Your task to perform on an android device: Empty the shopping cart on ebay.com. Image 0: 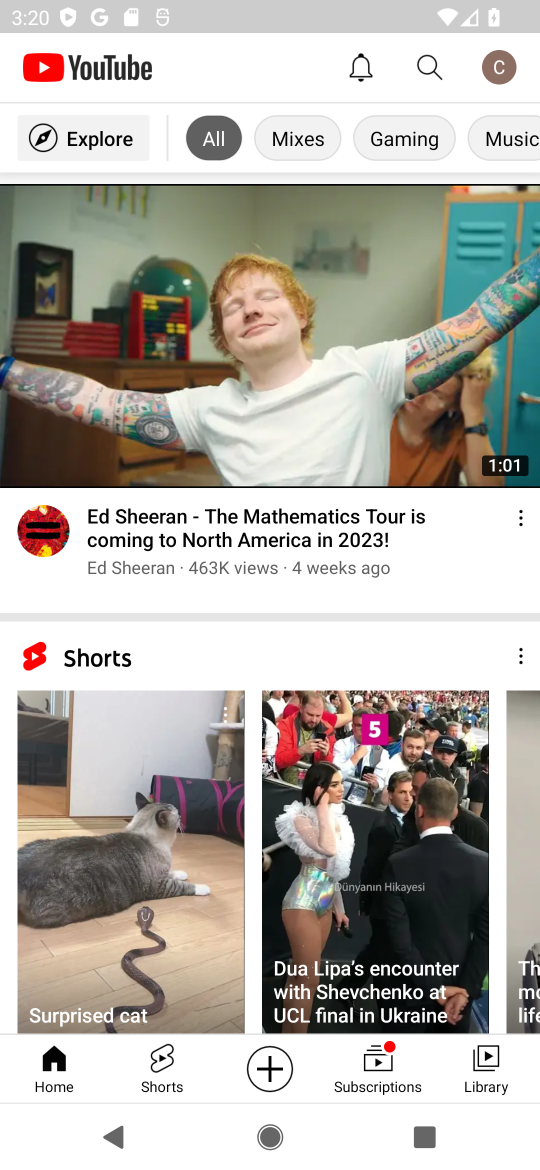
Step 0: press home button
Your task to perform on an android device: Empty the shopping cart on ebay.com. Image 1: 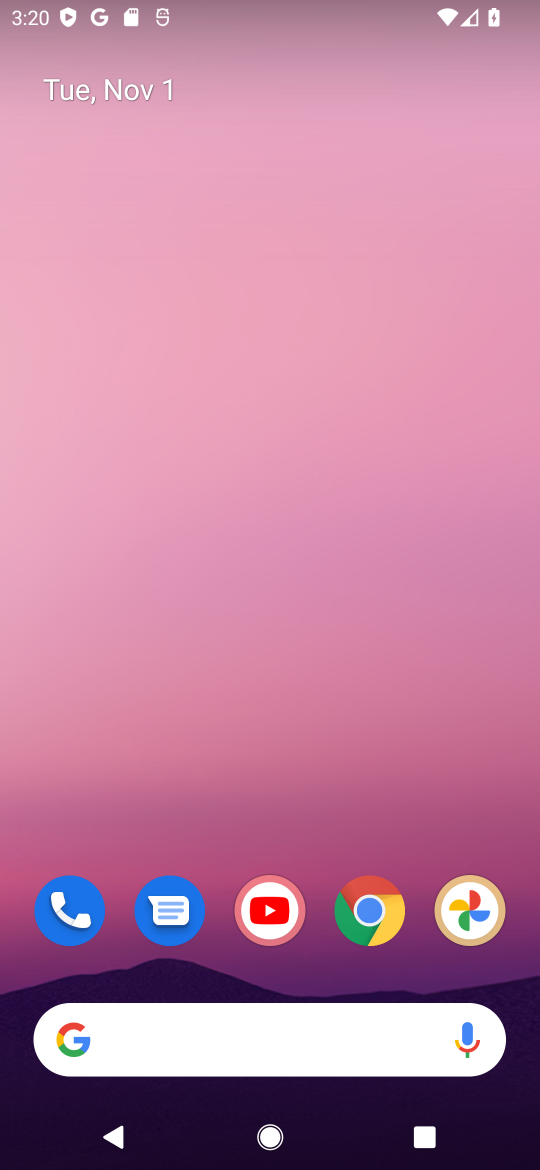
Step 1: click (242, 1042)
Your task to perform on an android device: Empty the shopping cart on ebay.com. Image 2: 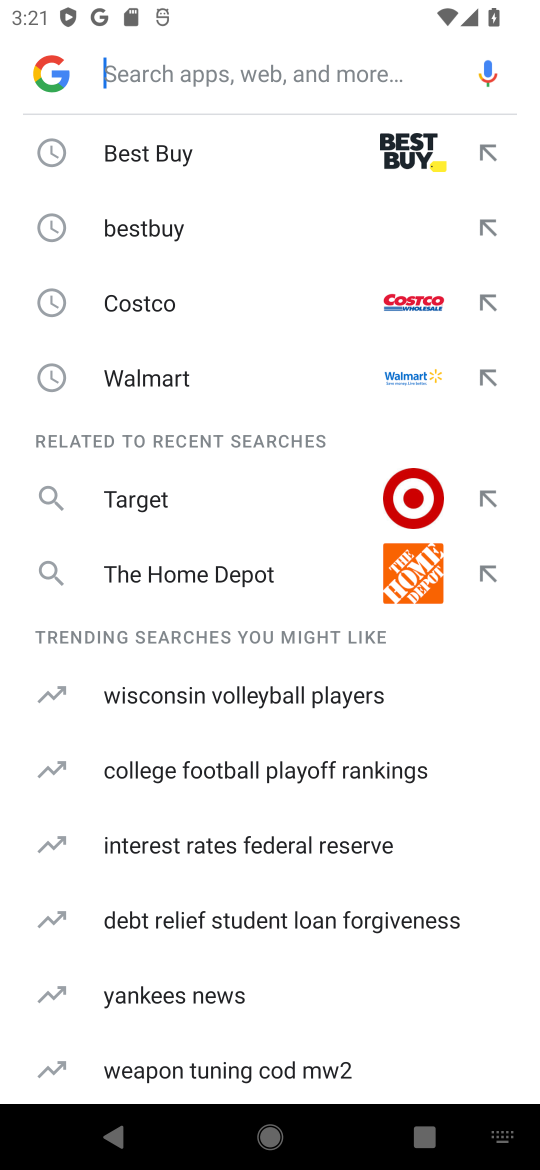
Step 2: click (238, 170)
Your task to perform on an android device: Empty the shopping cart on ebay.com. Image 3: 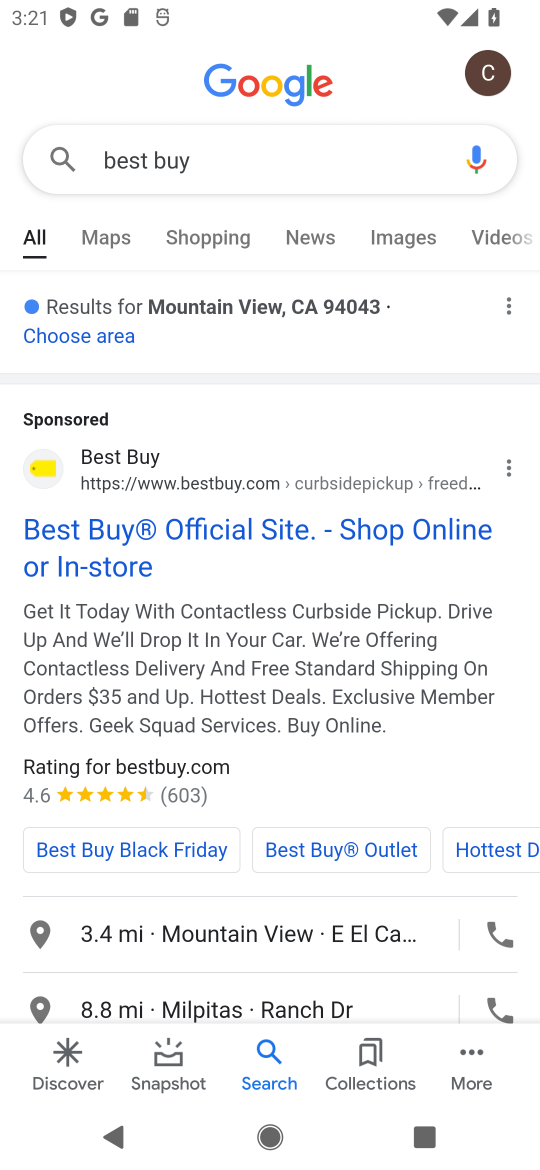
Step 3: click (149, 534)
Your task to perform on an android device: Empty the shopping cart on ebay.com. Image 4: 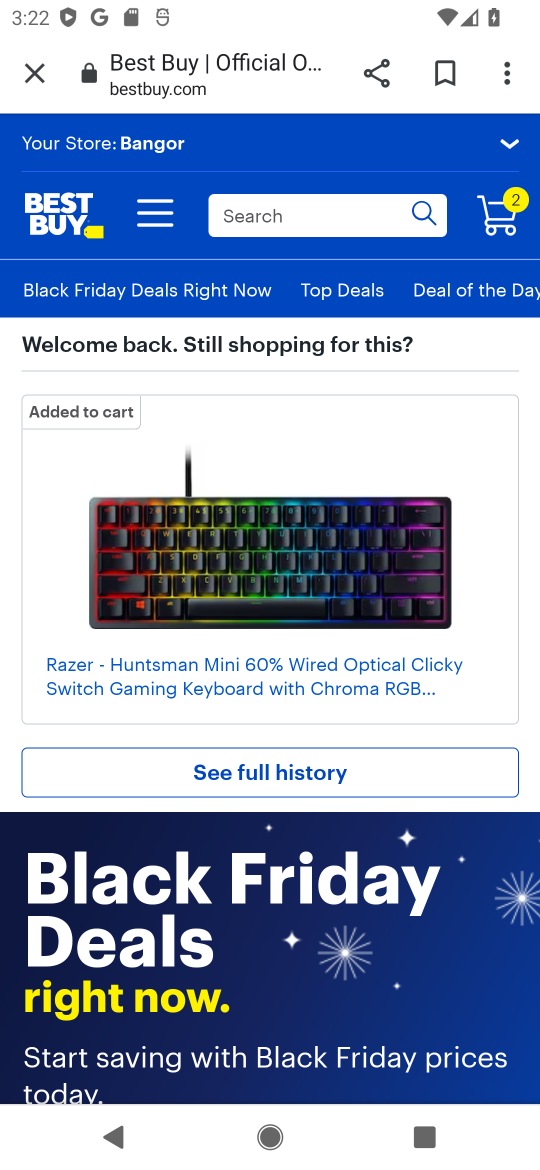
Step 4: click (512, 221)
Your task to perform on an android device: Empty the shopping cart on ebay.com. Image 5: 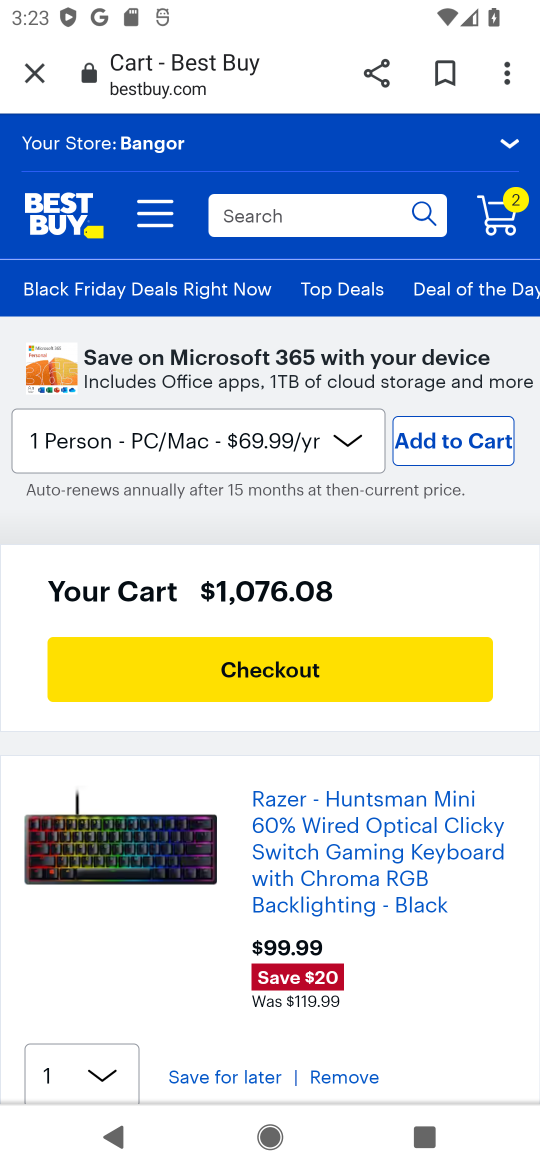
Step 5: drag from (400, 995) to (374, 768)
Your task to perform on an android device: Empty the shopping cart on ebay.com. Image 6: 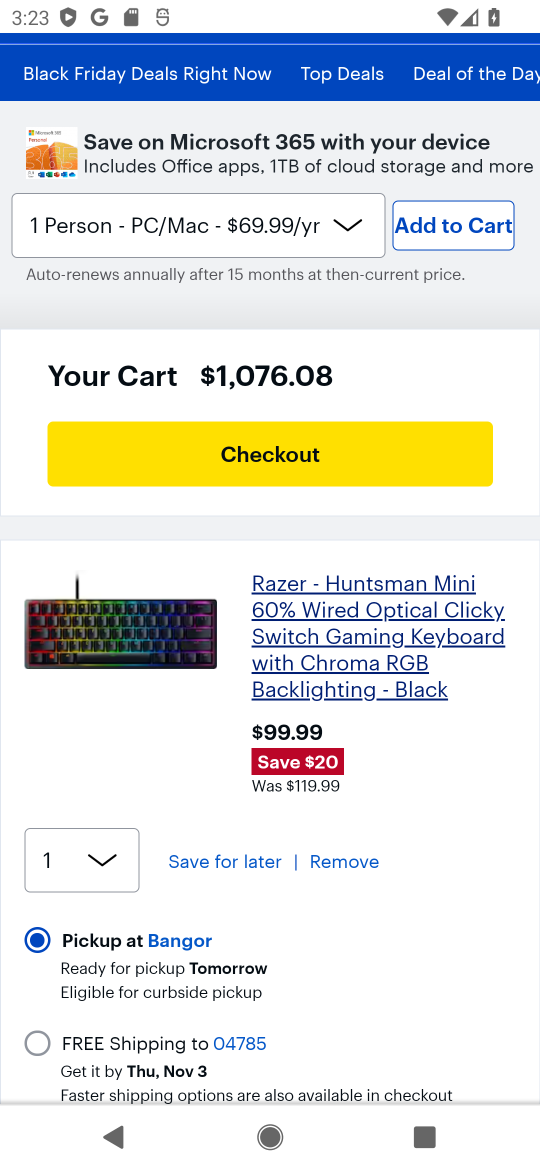
Step 6: click (328, 868)
Your task to perform on an android device: Empty the shopping cart on ebay.com. Image 7: 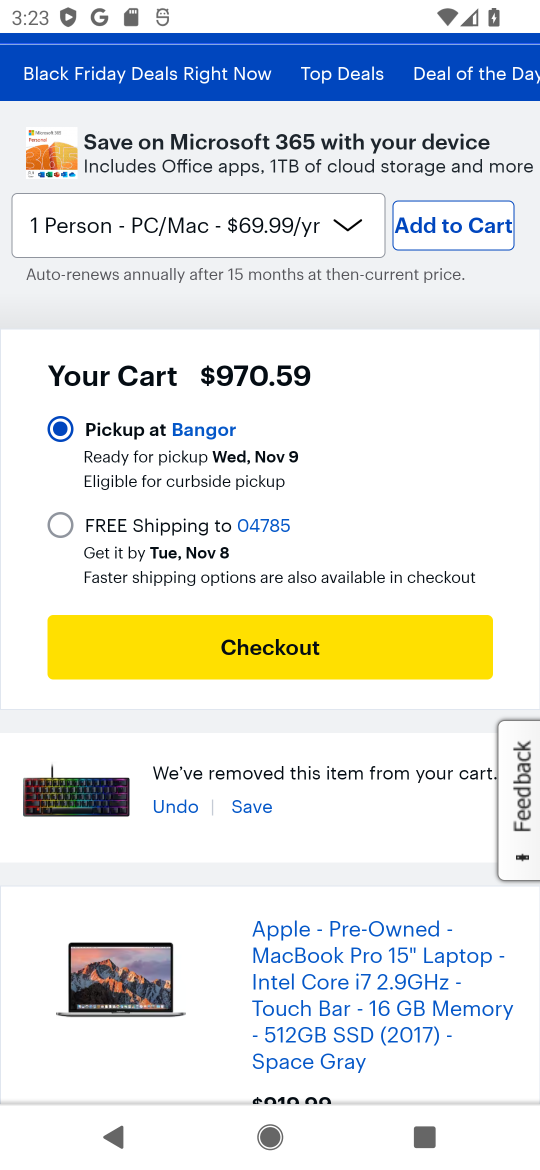
Step 7: drag from (286, 977) to (273, 636)
Your task to perform on an android device: Empty the shopping cart on ebay.com. Image 8: 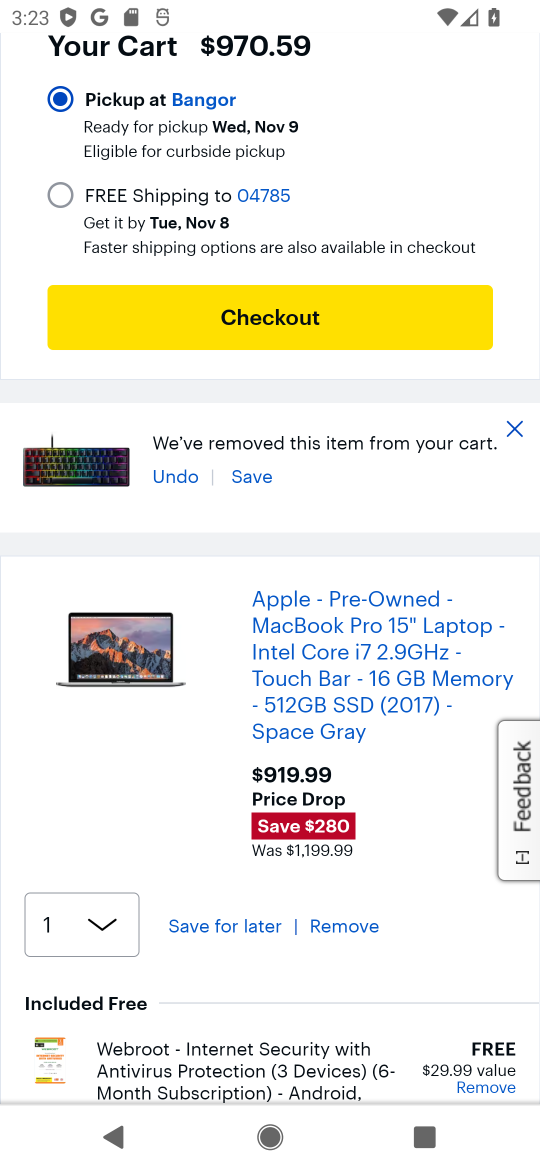
Step 8: click (338, 924)
Your task to perform on an android device: Empty the shopping cart on ebay.com. Image 9: 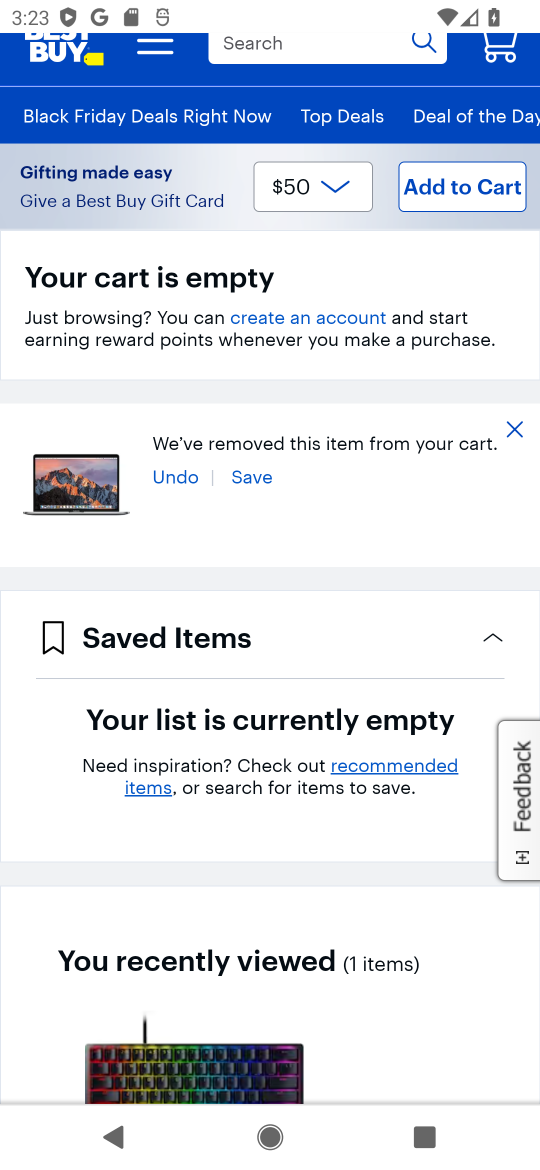
Step 9: click (518, 432)
Your task to perform on an android device: Empty the shopping cart on ebay.com. Image 10: 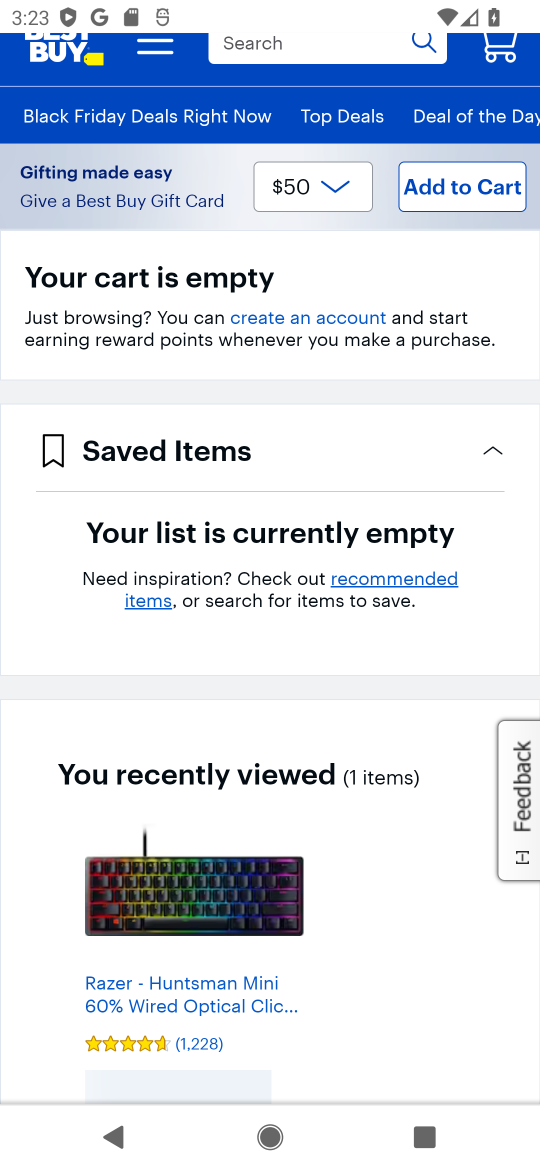
Step 10: task complete